Your task to perform on an android device: What's the news about the US president? Image 0: 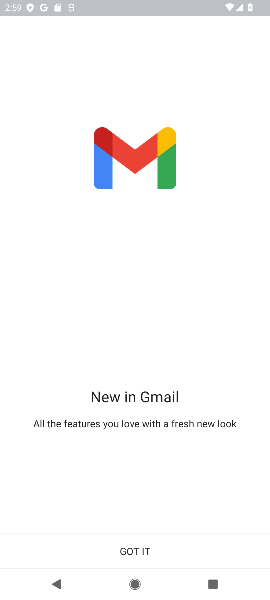
Step 0: press home button
Your task to perform on an android device: What's the news about the US president? Image 1: 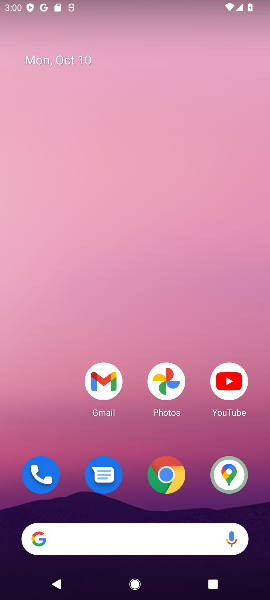
Step 1: drag from (138, 509) to (130, 236)
Your task to perform on an android device: What's the news about the US president? Image 2: 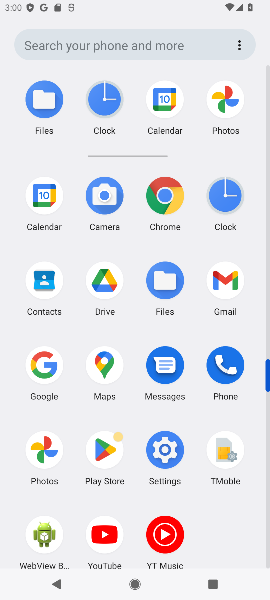
Step 2: click (52, 372)
Your task to perform on an android device: What's the news about the US president? Image 3: 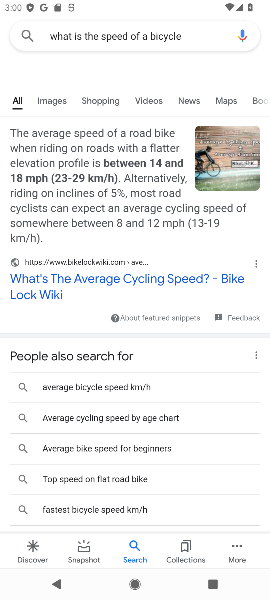
Step 3: click (220, 36)
Your task to perform on an android device: What's the news about the US president? Image 4: 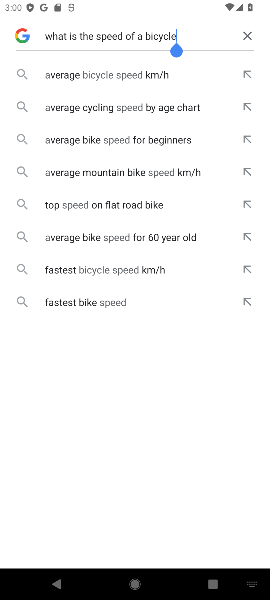
Step 4: click (246, 34)
Your task to perform on an android device: What's the news about the US president? Image 5: 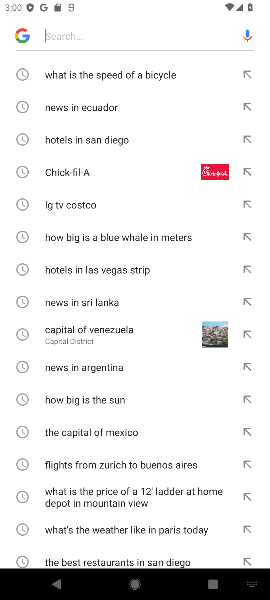
Step 5: type "news about us president"
Your task to perform on an android device: What's the news about the US president? Image 6: 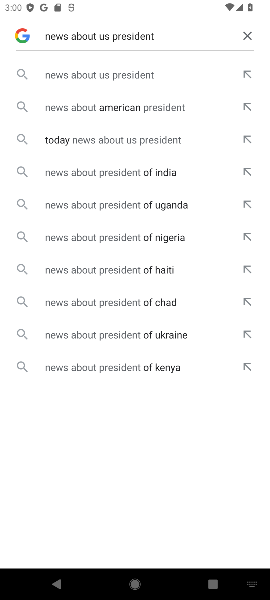
Step 6: click (134, 80)
Your task to perform on an android device: What's the news about the US president? Image 7: 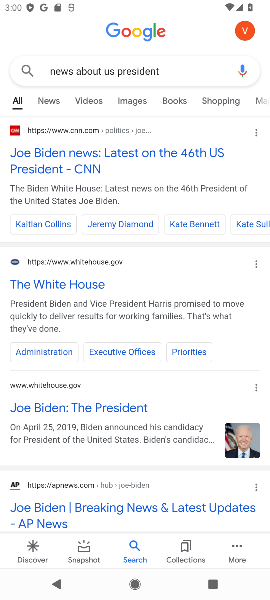
Step 7: task complete